Your task to perform on an android device: Go to settings Image 0: 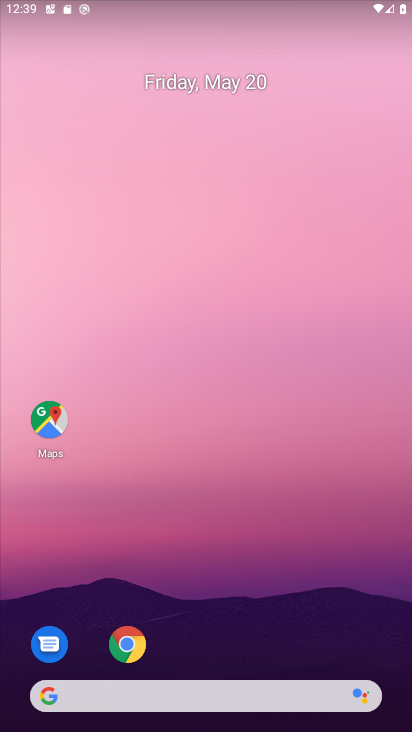
Step 0: drag from (209, 586) to (209, 362)
Your task to perform on an android device: Go to settings Image 1: 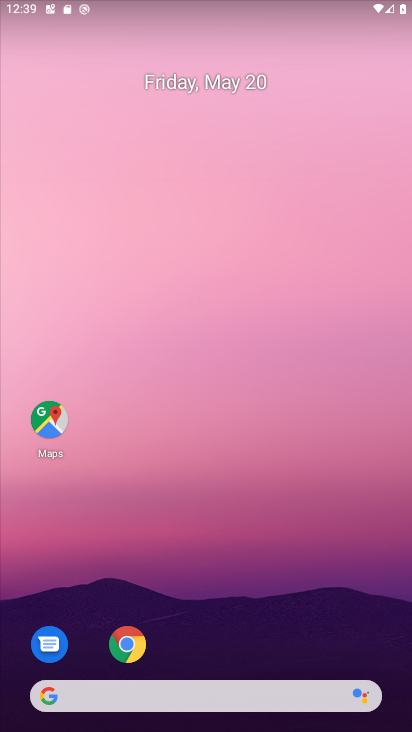
Step 1: drag from (225, 661) to (225, 296)
Your task to perform on an android device: Go to settings Image 2: 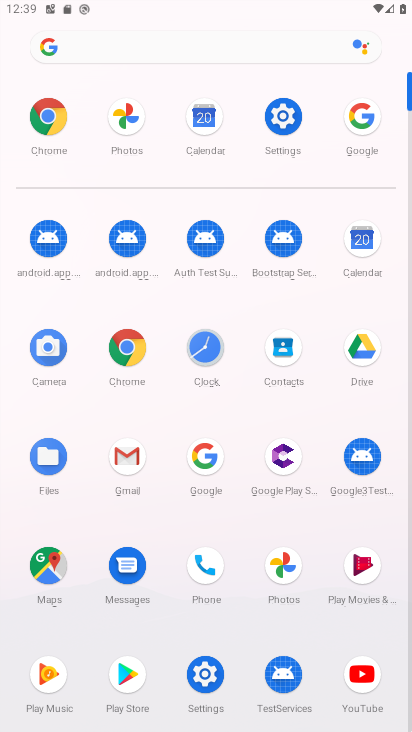
Step 2: click (295, 116)
Your task to perform on an android device: Go to settings Image 3: 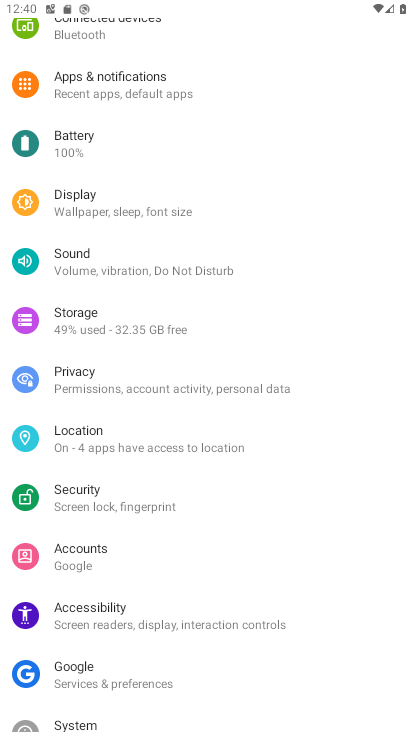
Step 3: task complete